Your task to perform on an android device: Go to location settings Image 0: 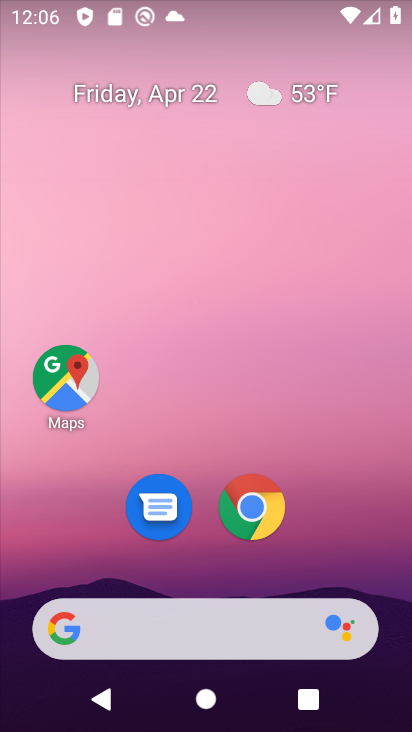
Step 0: click (165, 367)
Your task to perform on an android device: Go to location settings Image 1: 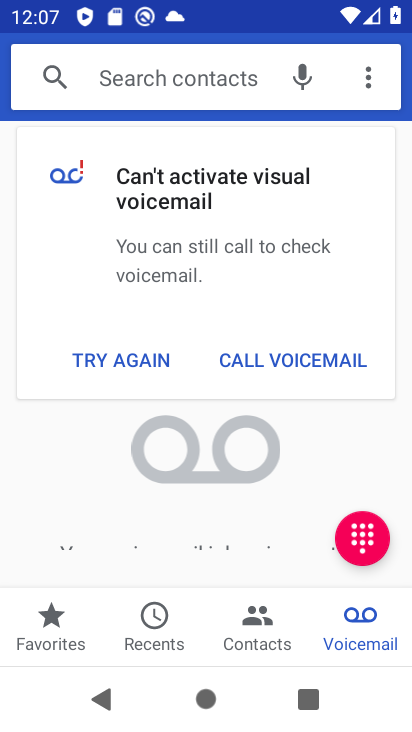
Step 1: press home button
Your task to perform on an android device: Go to location settings Image 2: 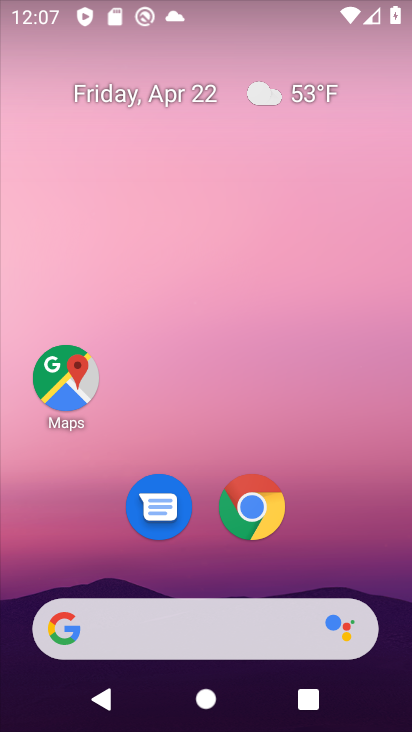
Step 2: drag from (229, 604) to (197, 223)
Your task to perform on an android device: Go to location settings Image 3: 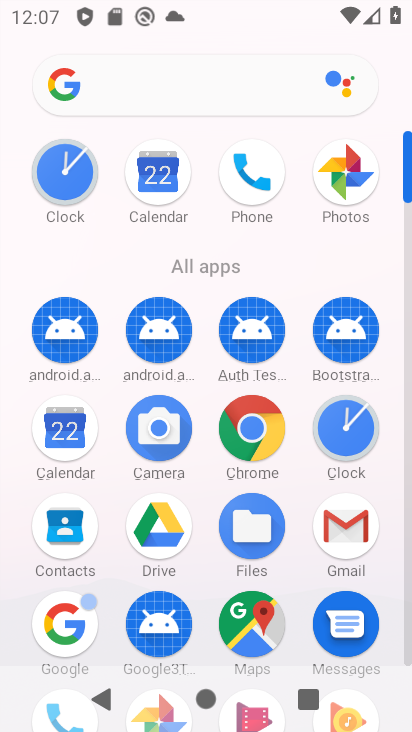
Step 3: drag from (170, 553) to (179, 377)
Your task to perform on an android device: Go to location settings Image 4: 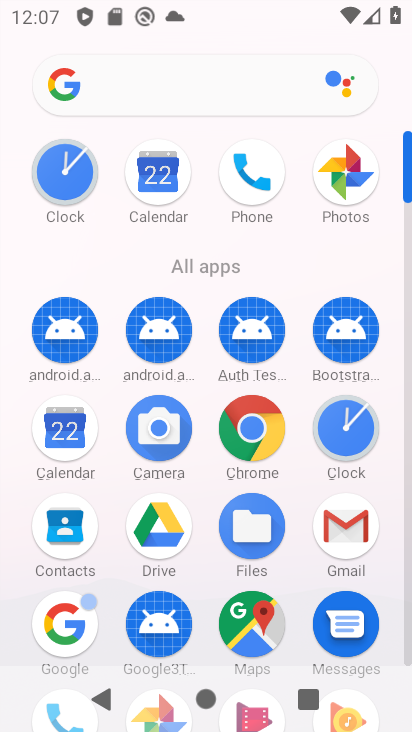
Step 4: drag from (243, 638) to (226, 243)
Your task to perform on an android device: Go to location settings Image 5: 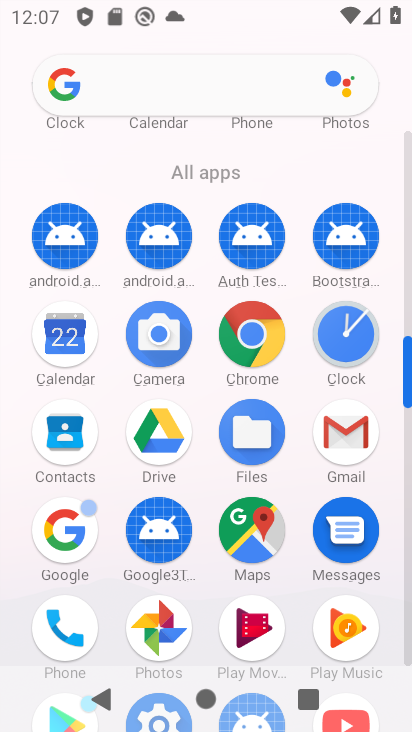
Step 5: drag from (154, 594) to (158, 267)
Your task to perform on an android device: Go to location settings Image 6: 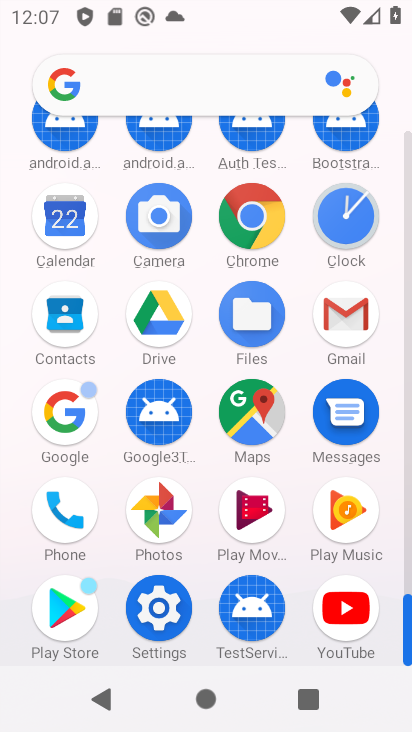
Step 6: click (155, 628)
Your task to perform on an android device: Go to location settings Image 7: 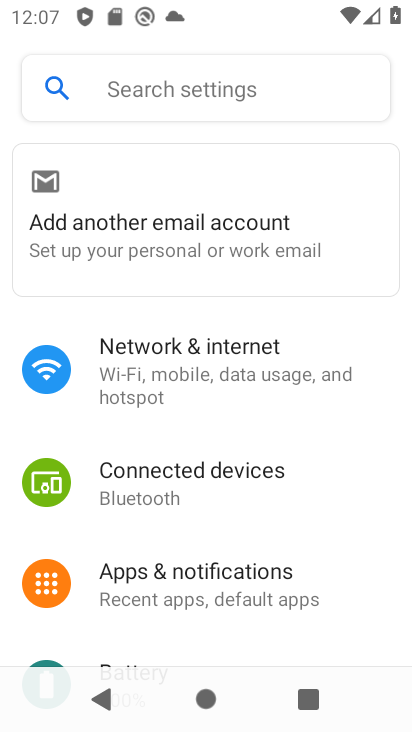
Step 7: drag from (179, 571) to (182, 184)
Your task to perform on an android device: Go to location settings Image 8: 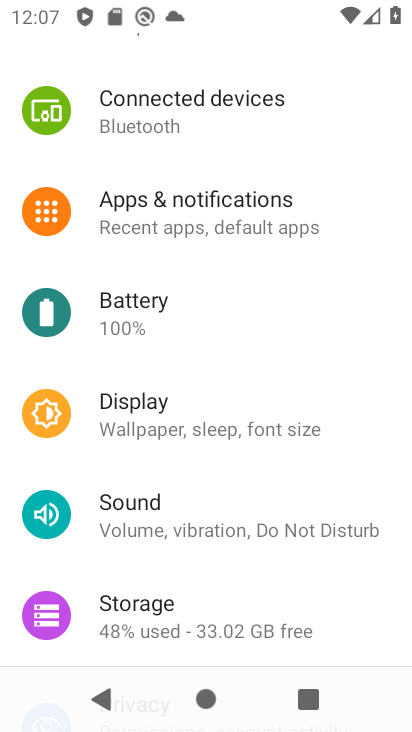
Step 8: drag from (179, 601) to (192, 230)
Your task to perform on an android device: Go to location settings Image 9: 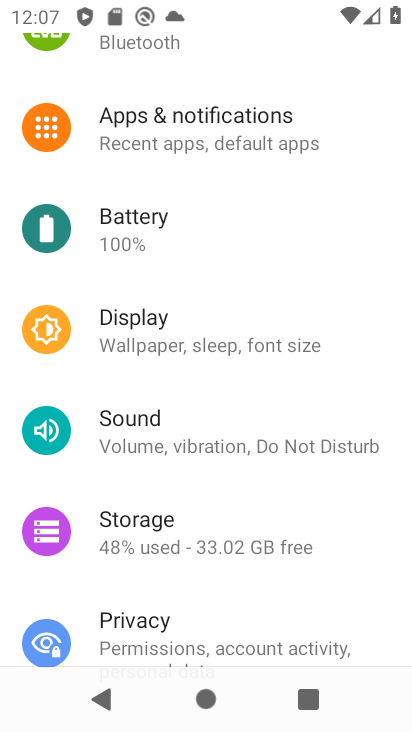
Step 9: drag from (174, 524) to (215, 56)
Your task to perform on an android device: Go to location settings Image 10: 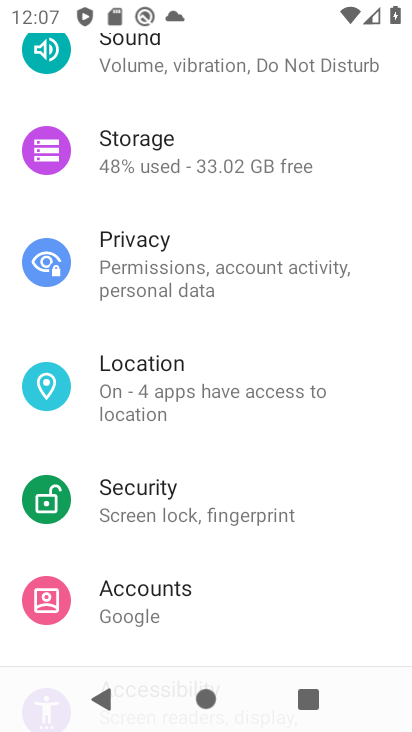
Step 10: click (167, 396)
Your task to perform on an android device: Go to location settings Image 11: 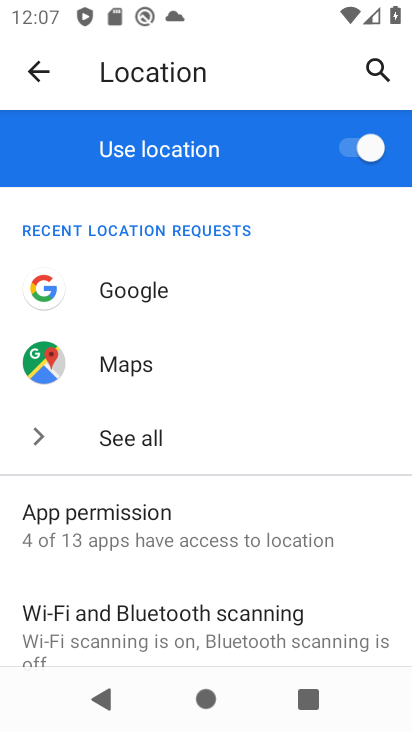
Step 11: task complete